Your task to perform on an android device: What's the weather? Image 0: 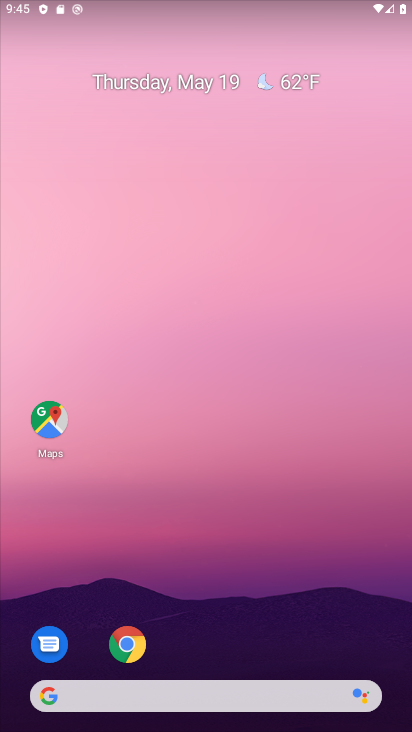
Step 0: drag from (10, 244) to (398, 285)
Your task to perform on an android device: What's the weather? Image 1: 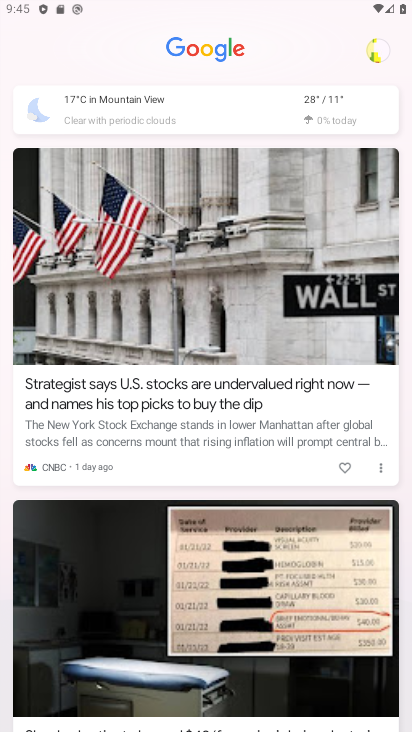
Step 1: click (182, 117)
Your task to perform on an android device: What's the weather? Image 2: 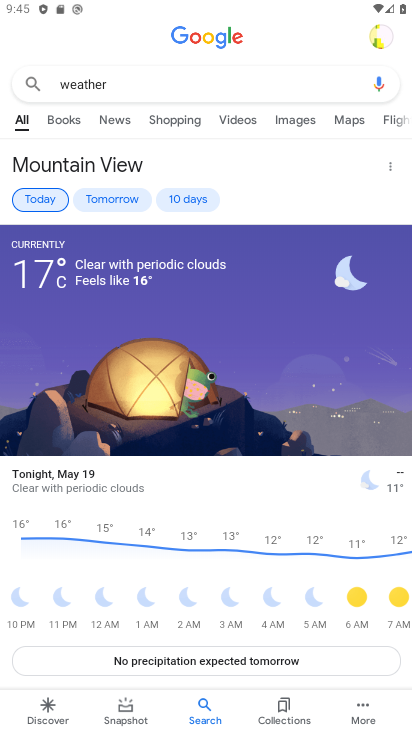
Step 2: task complete